Your task to perform on an android device: read, delete, or share a saved page in the chrome app Image 0: 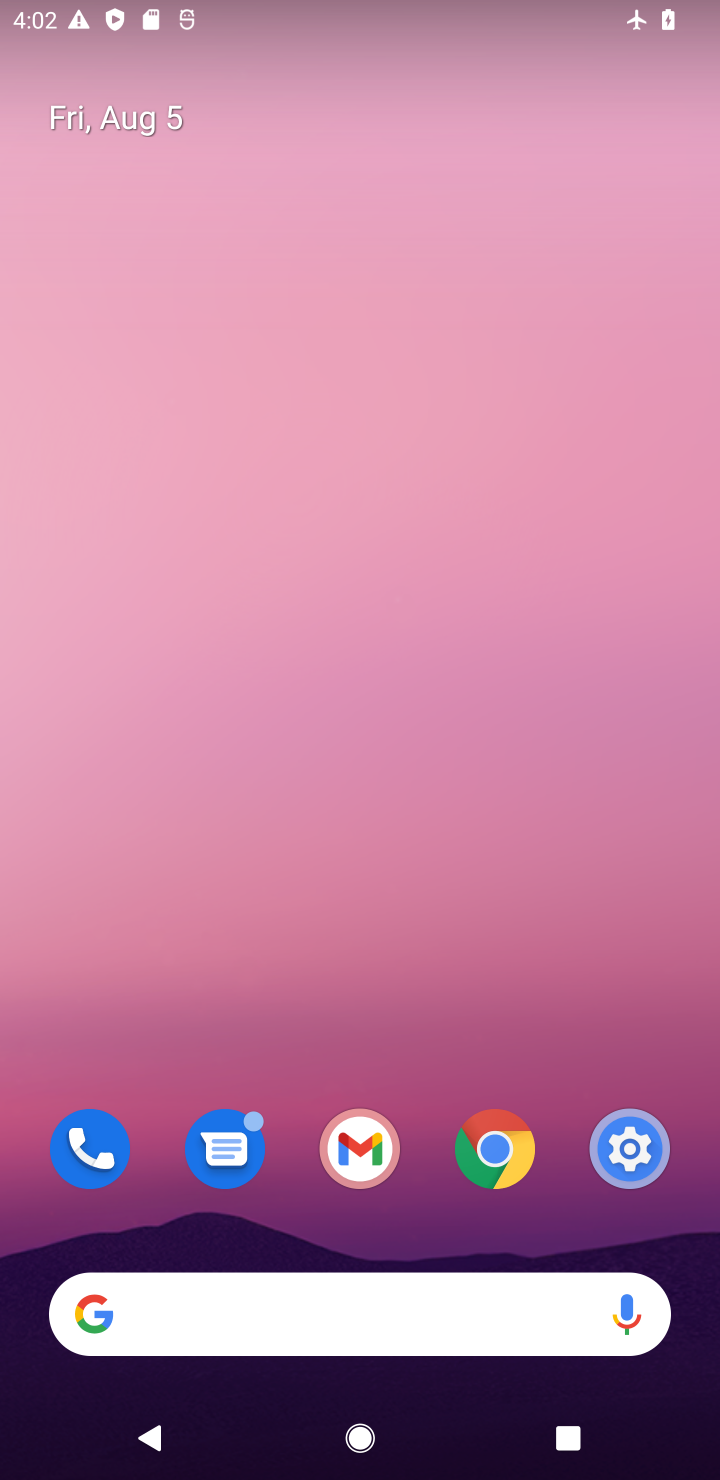
Step 0: click (507, 1176)
Your task to perform on an android device: read, delete, or share a saved page in the chrome app Image 1: 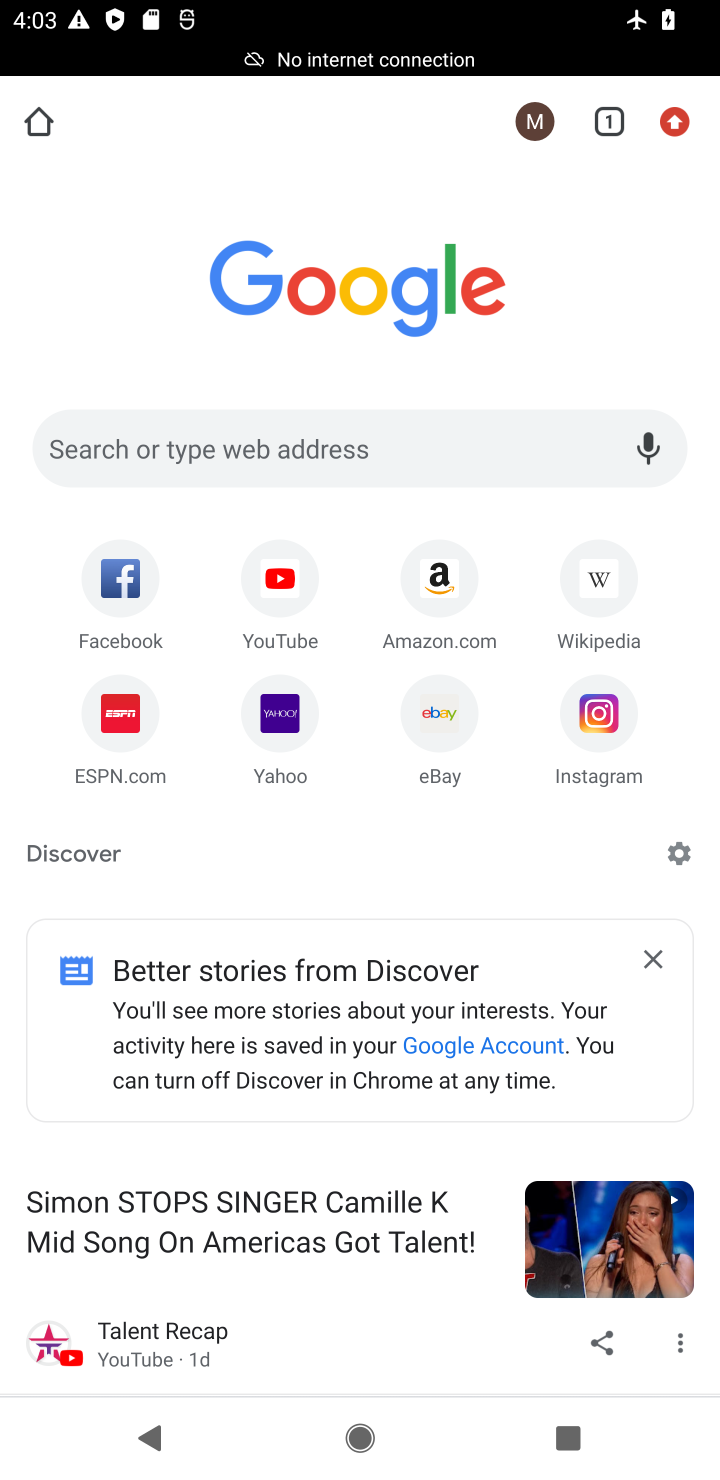
Step 1: task complete